Your task to perform on an android device: Go to eBay Image 0: 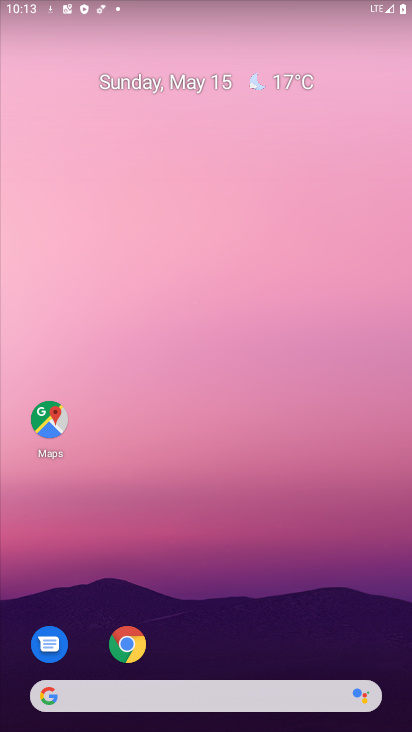
Step 0: drag from (275, 701) to (244, 290)
Your task to perform on an android device: Go to eBay Image 1: 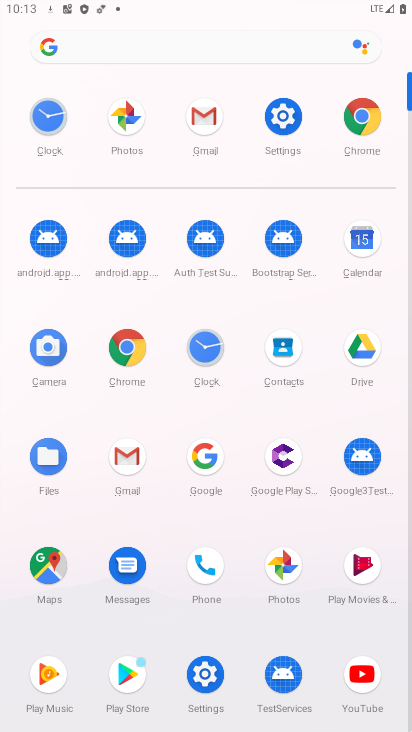
Step 1: click (362, 130)
Your task to perform on an android device: Go to eBay Image 2: 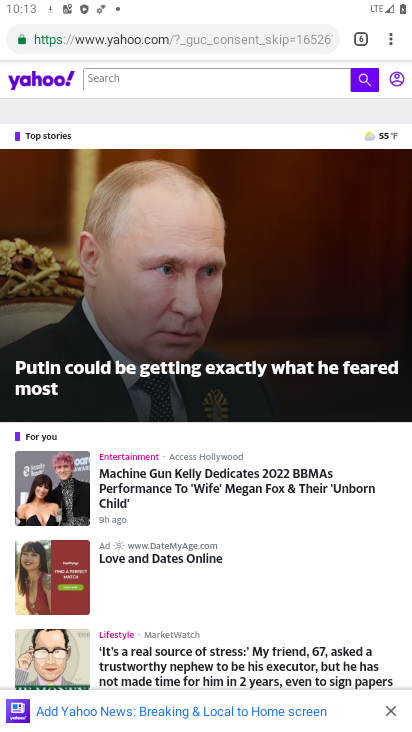
Step 2: click (166, 40)
Your task to perform on an android device: Go to eBay Image 3: 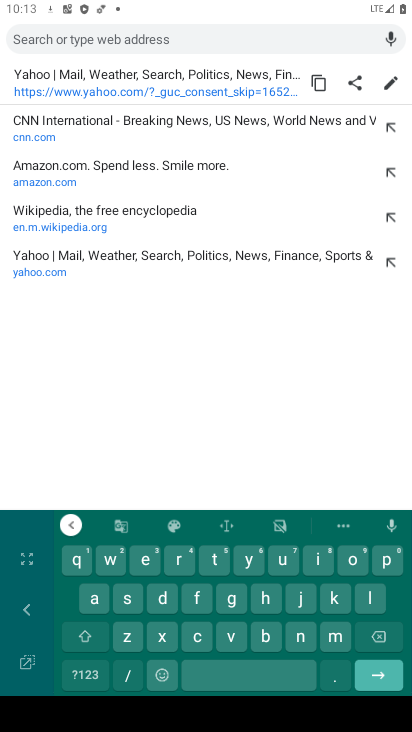
Step 3: click (148, 559)
Your task to perform on an android device: Go to eBay Image 4: 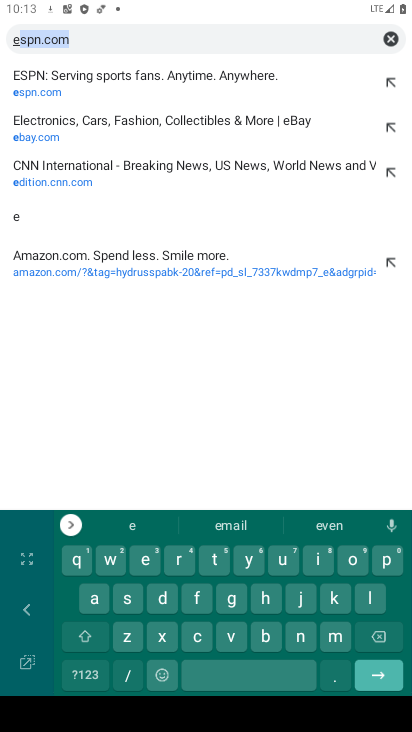
Step 4: click (17, 562)
Your task to perform on an android device: Go to eBay Image 5: 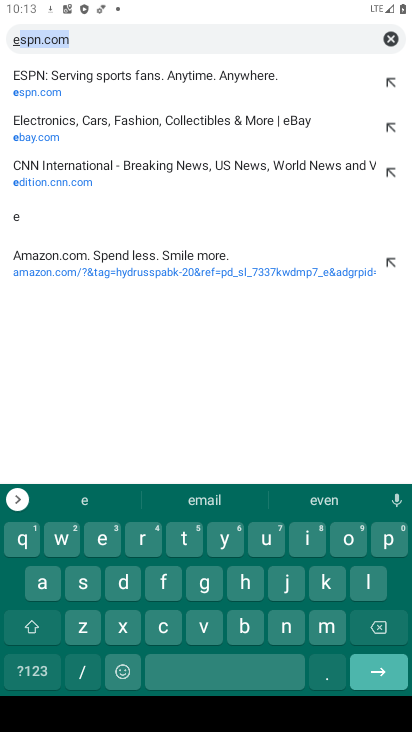
Step 5: click (236, 629)
Your task to perform on an android device: Go to eBay Image 6: 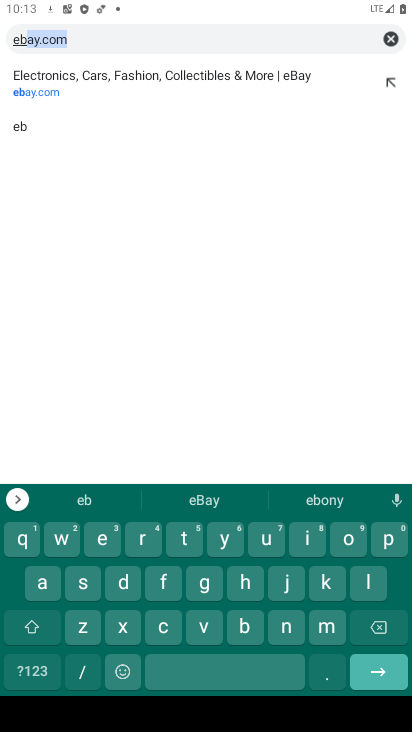
Step 6: click (116, 42)
Your task to perform on an android device: Go to eBay Image 7: 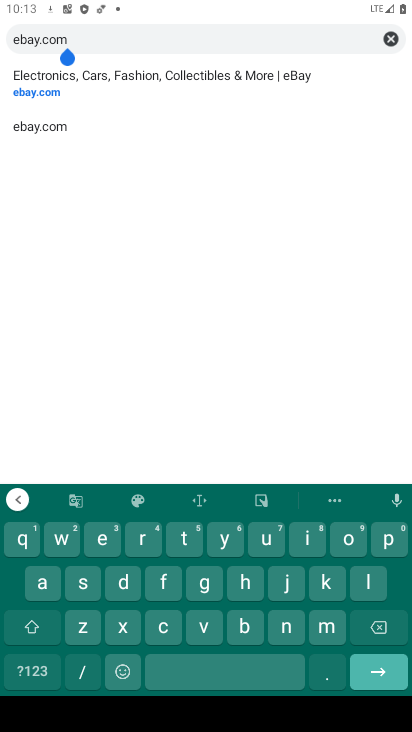
Step 7: click (387, 671)
Your task to perform on an android device: Go to eBay Image 8: 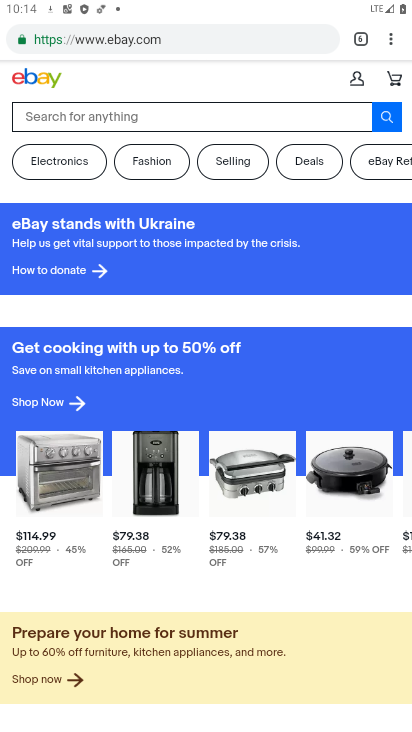
Step 8: task complete